Your task to perform on an android device: turn off notifications in google photos Image 0: 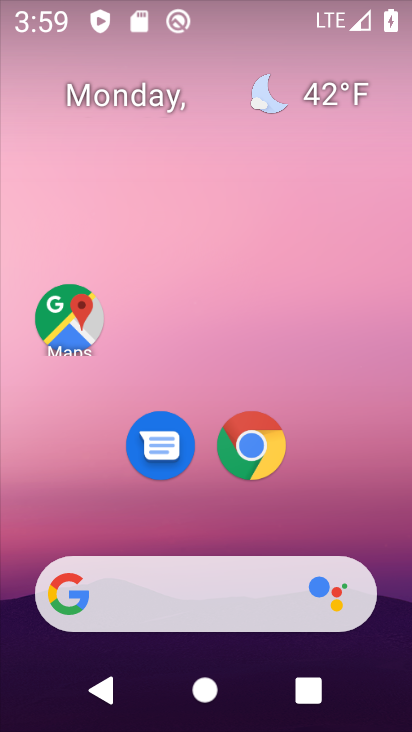
Step 0: drag from (4, 493) to (214, 25)
Your task to perform on an android device: turn off notifications in google photos Image 1: 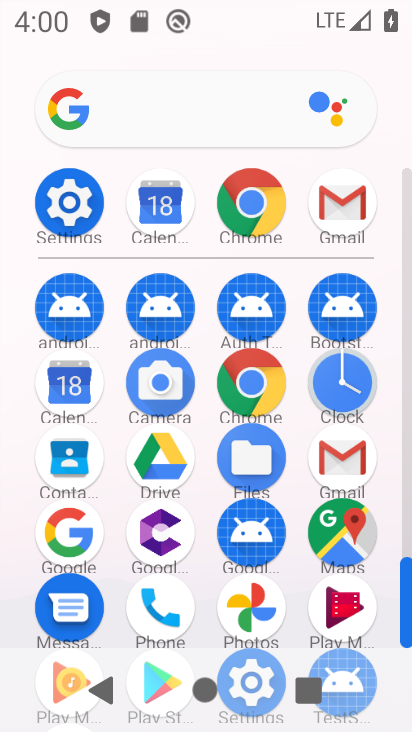
Step 1: click (268, 594)
Your task to perform on an android device: turn off notifications in google photos Image 2: 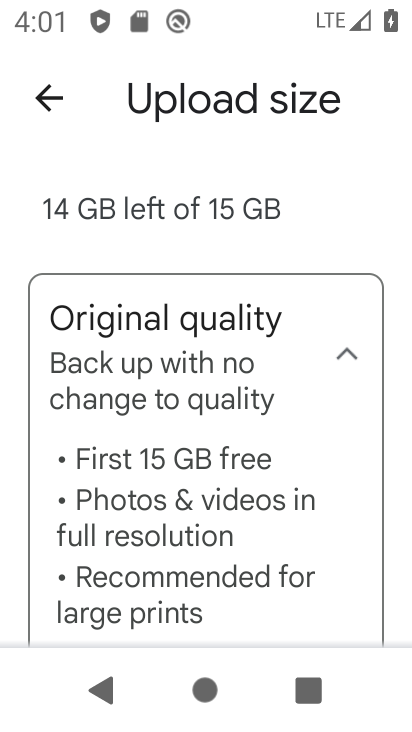
Step 2: press back button
Your task to perform on an android device: turn off notifications in google photos Image 3: 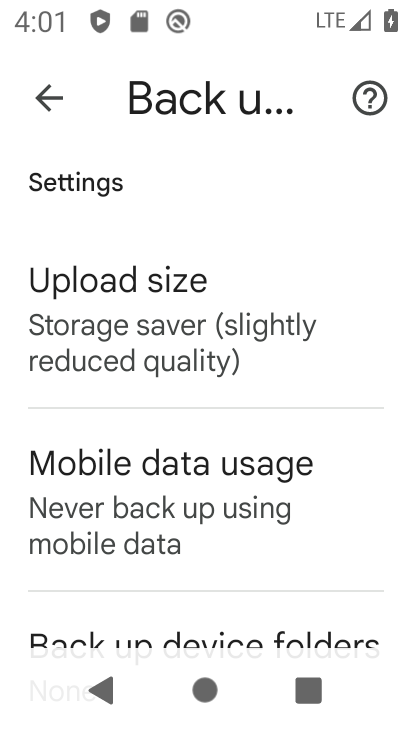
Step 3: click (44, 111)
Your task to perform on an android device: turn off notifications in google photos Image 4: 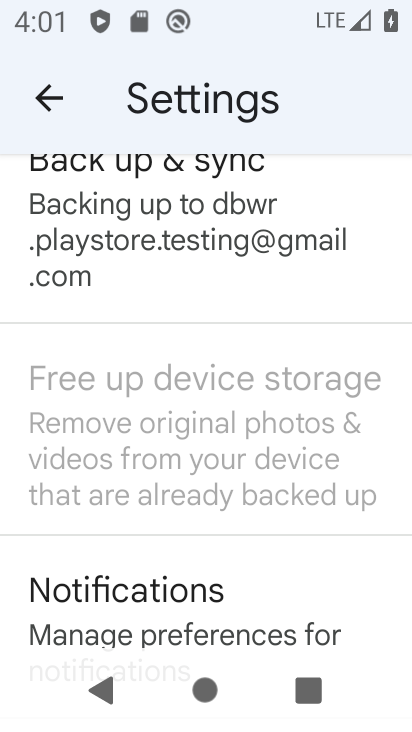
Step 4: click (223, 589)
Your task to perform on an android device: turn off notifications in google photos Image 5: 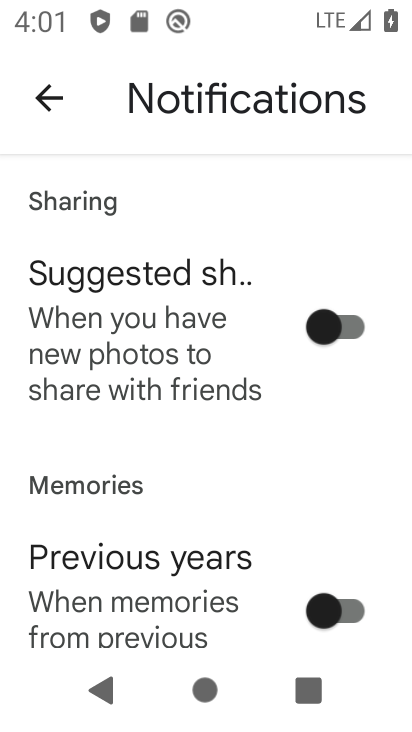
Step 5: task complete